Your task to perform on an android device: move a message to another label in the gmail app Image 0: 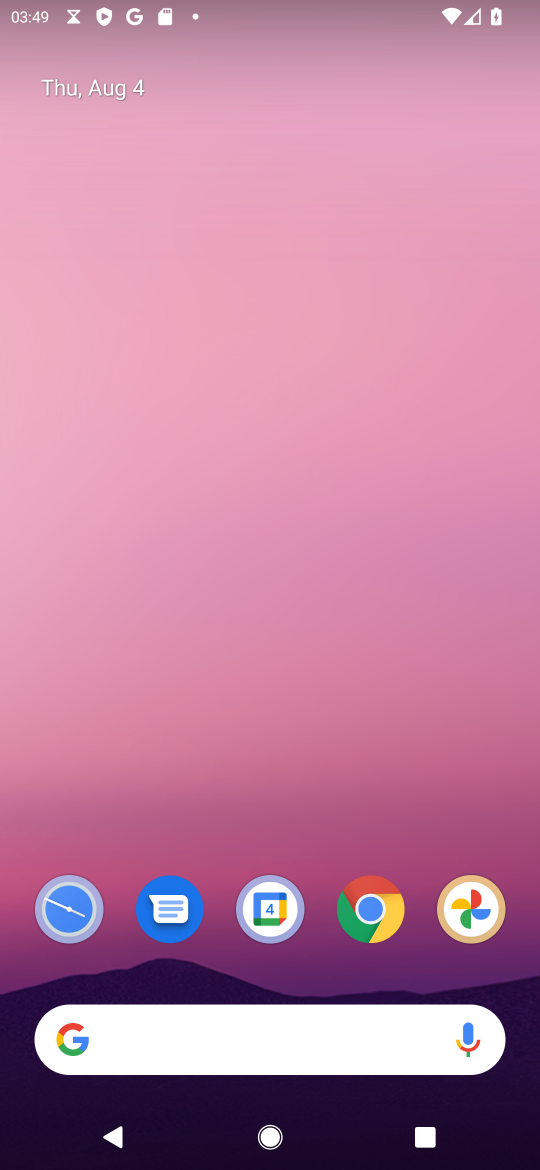
Step 0: drag from (230, 952) to (386, 269)
Your task to perform on an android device: move a message to another label in the gmail app Image 1: 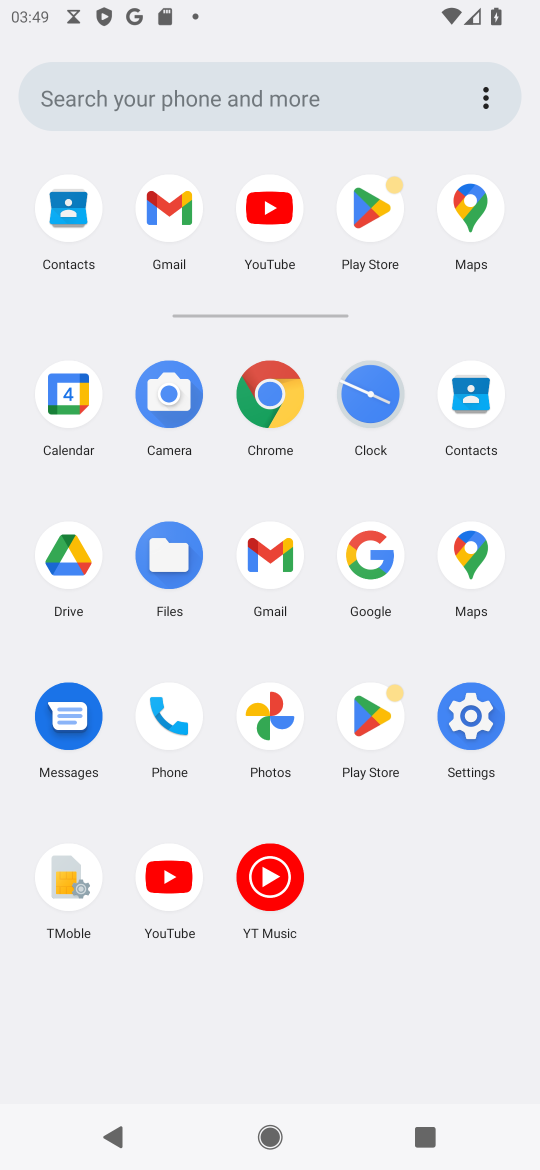
Step 1: click (167, 219)
Your task to perform on an android device: move a message to another label in the gmail app Image 2: 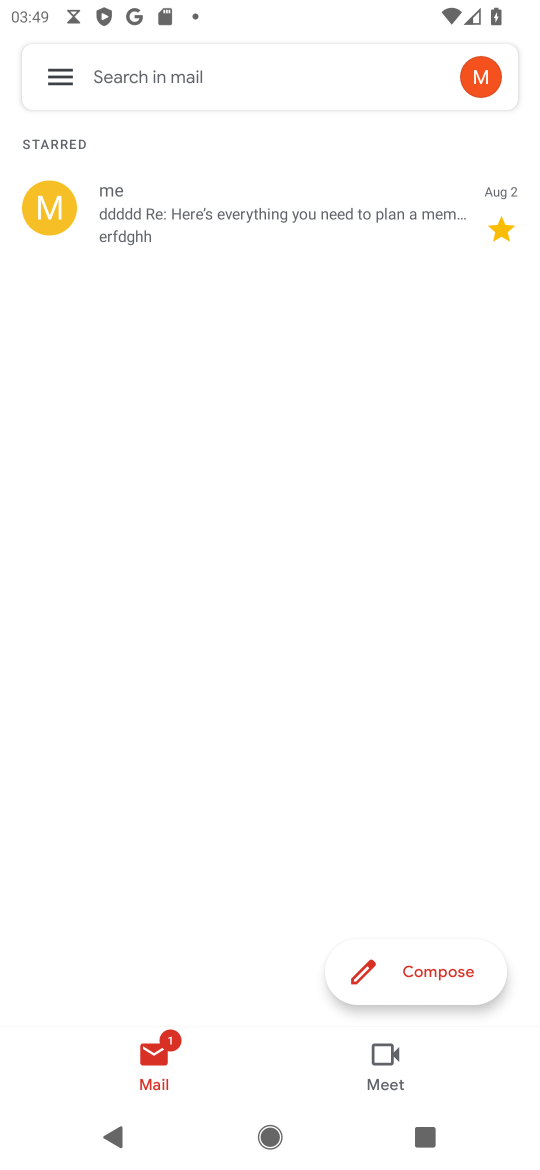
Step 2: click (64, 201)
Your task to perform on an android device: move a message to another label in the gmail app Image 3: 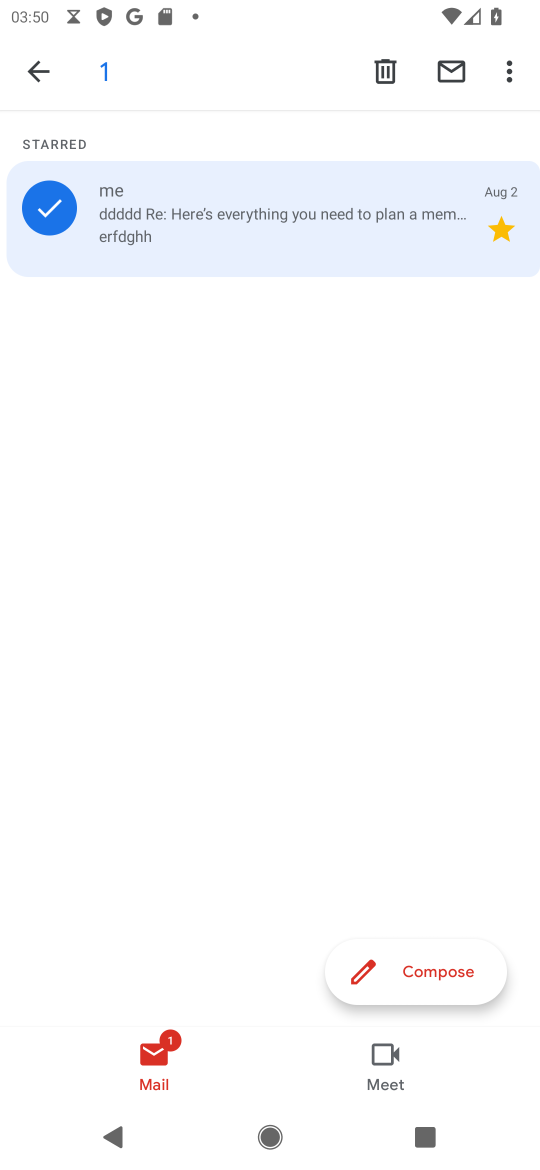
Step 3: click (515, 69)
Your task to perform on an android device: move a message to another label in the gmail app Image 4: 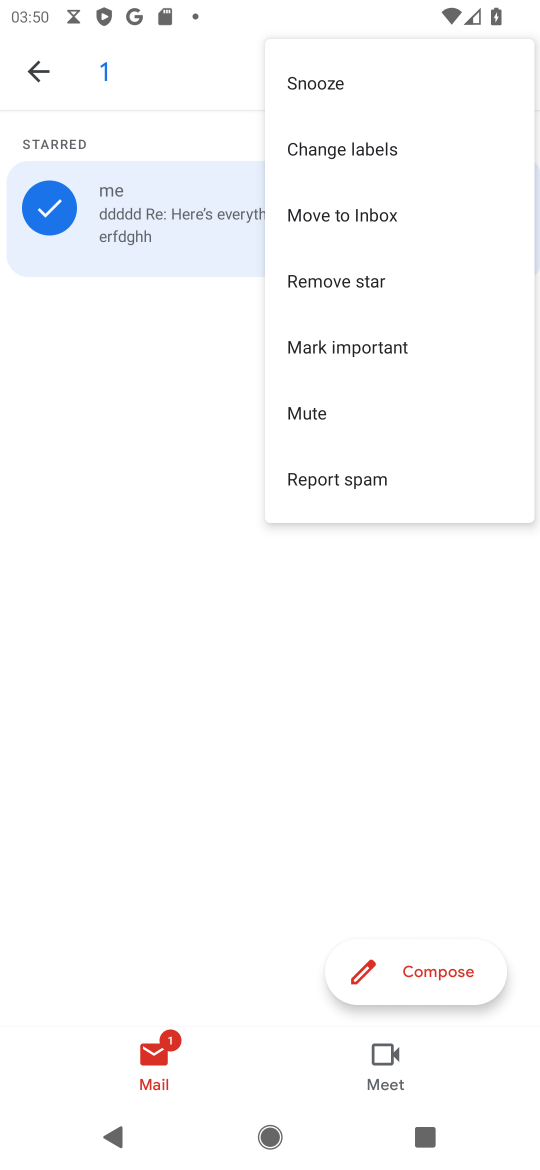
Step 4: click (383, 217)
Your task to perform on an android device: move a message to another label in the gmail app Image 5: 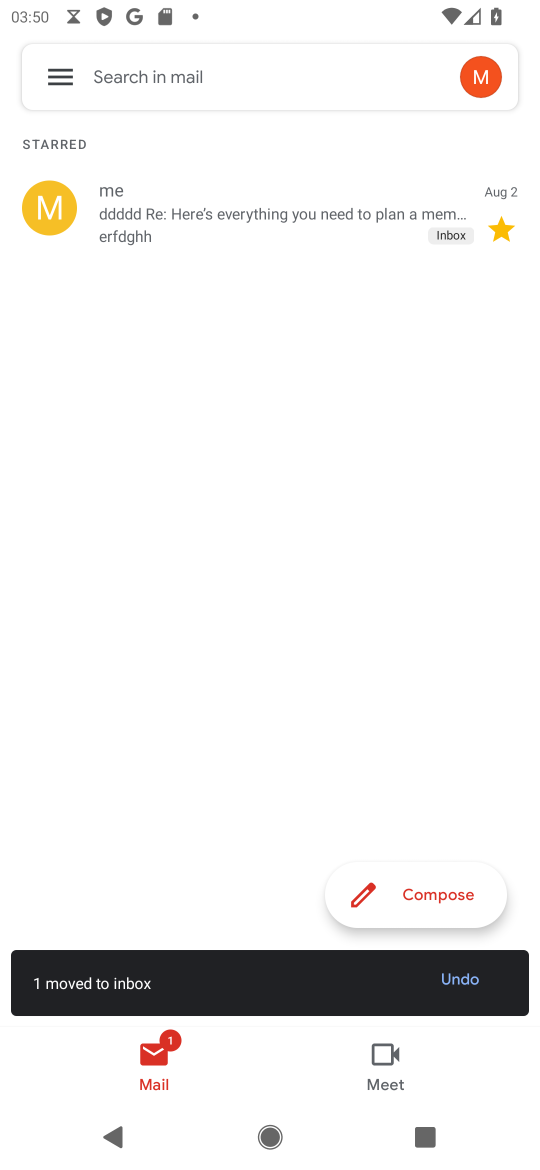
Step 5: task complete